Your task to perform on an android device: Open maps Image 0: 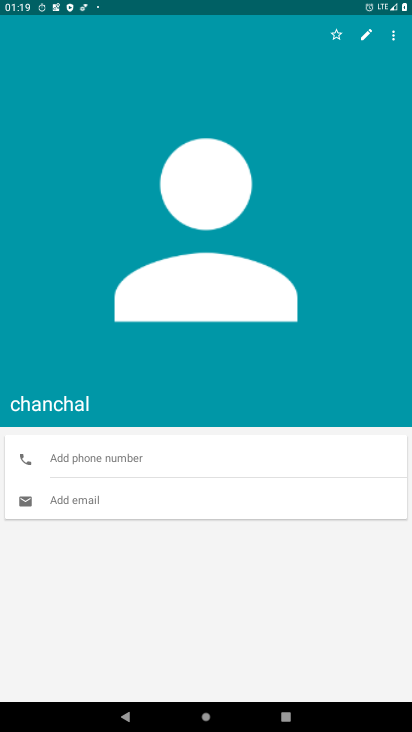
Step 0: press home button
Your task to perform on an android device: Open maps Image 1: 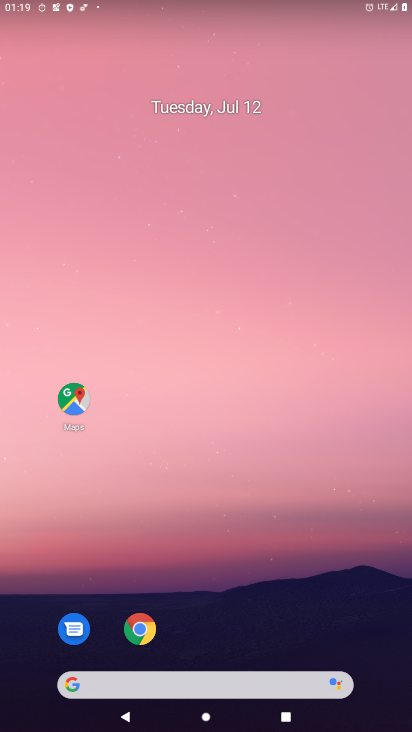
Step 1: drag from (81, 613) to (248, 20)
Your task to perform on an android device: Open maps Image 2: 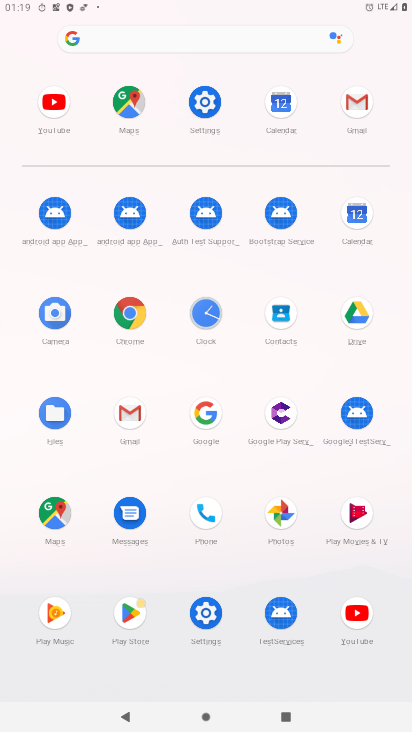
Step 2: click (129, 92)
Your task to perform on an android device: Open maps Image 3: 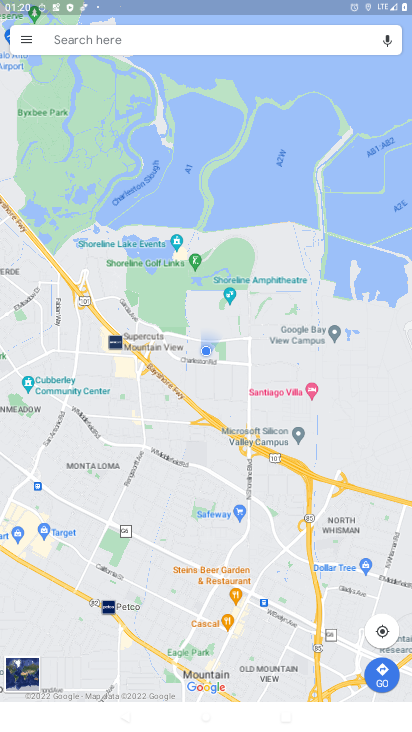
Step 3: task complete